Your task to perform on an android device: Check the news Image 0: 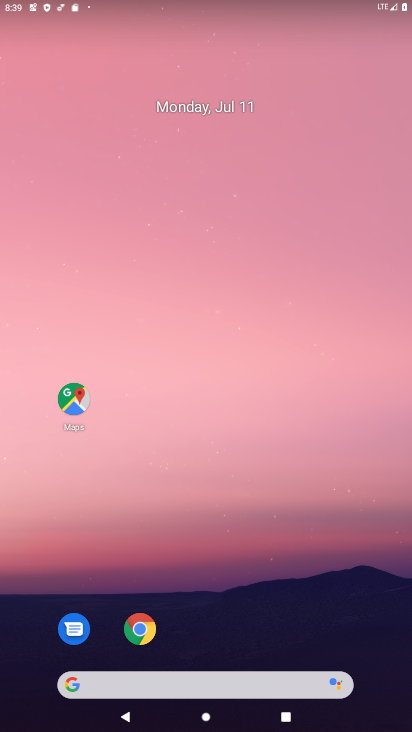
Step 0: click (212, 686)
Your task to perform on an android device: Check the news Image 1: 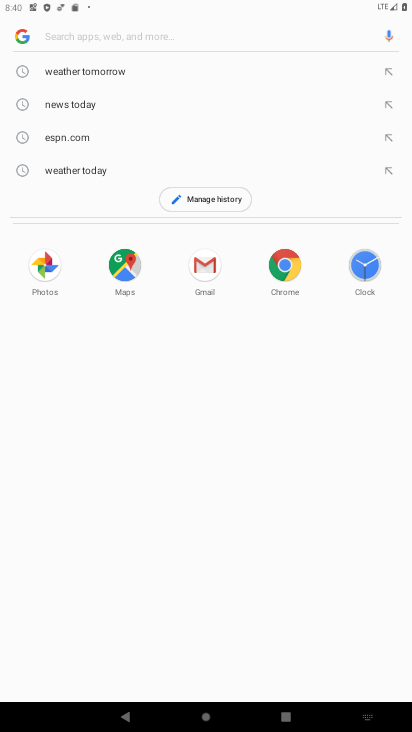
Step 1: click (30, 36)
Your task to perform on an android device: Check the news Image 2: 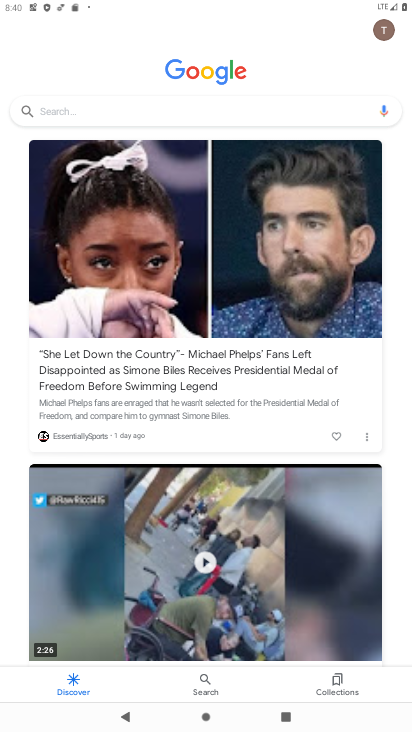
Step 2: task complete